Your task to perform on an android device: Show the shopping cart on ebay. Add macbook pro to the cart on ebay Image 0: 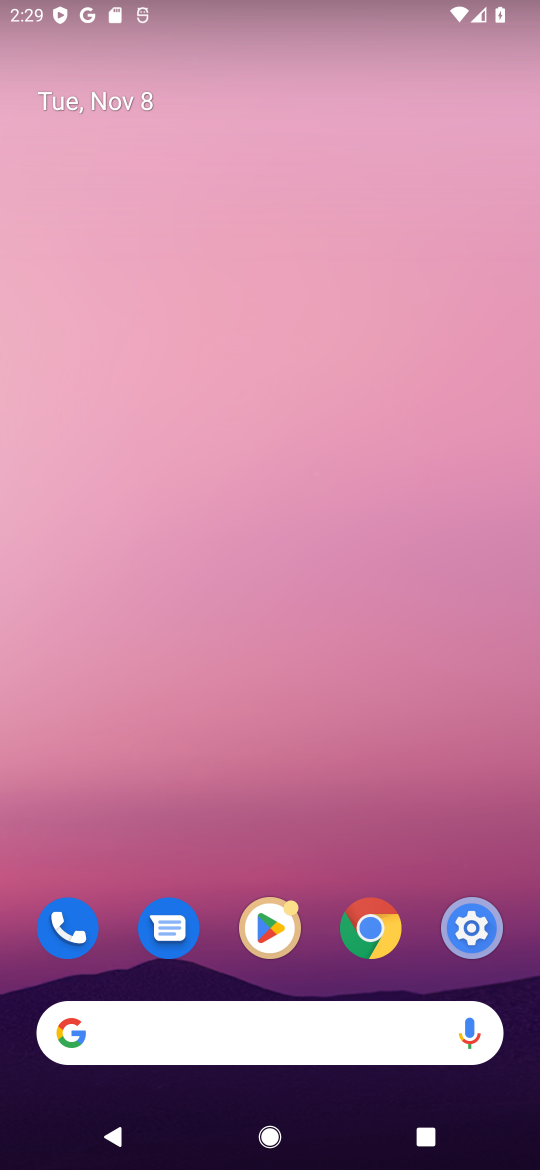
Step 0: click (263, 1036)
Your task to perform on an android device: Show the shopping cart on ebay. Add macbook pro to the cart on ebay Image 1: 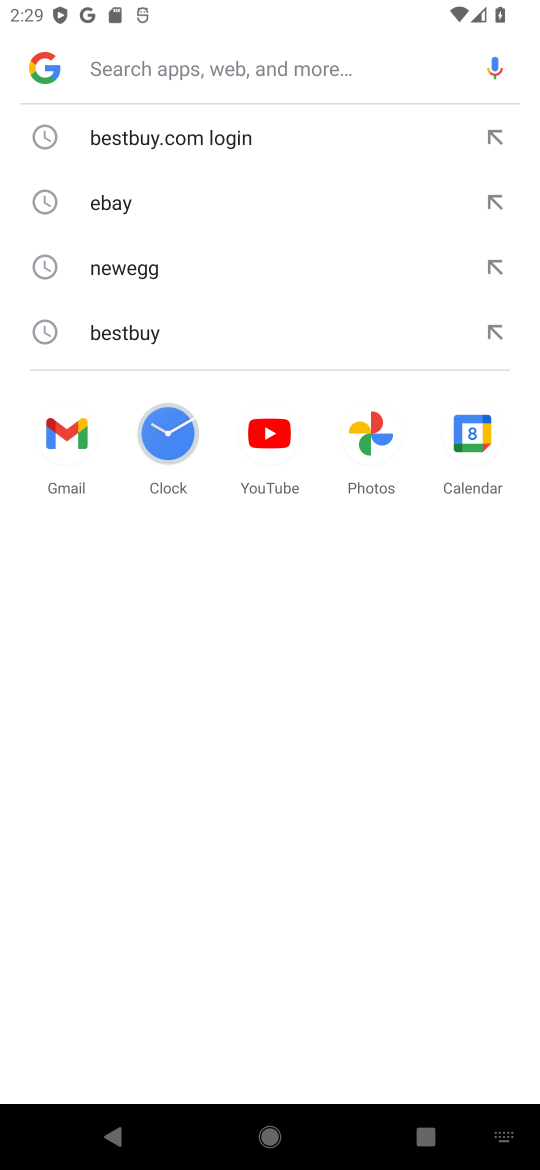
Step 1: click (125, 193)
Your task to perform on an android device: Show the shopping cart on ebay. Add macbook pro to the cart on ebay Image 2: 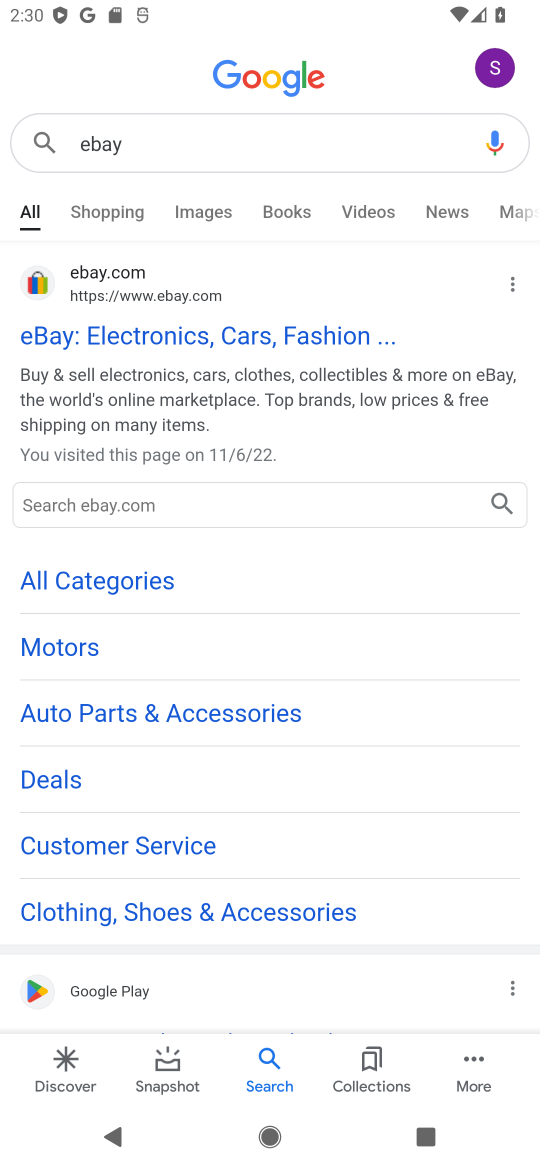
Step 2: click (108, 294)
Your task to perform on an android device: Show the shopping cart on ebay. Add macbook pro to the cart on ebay Image 3: 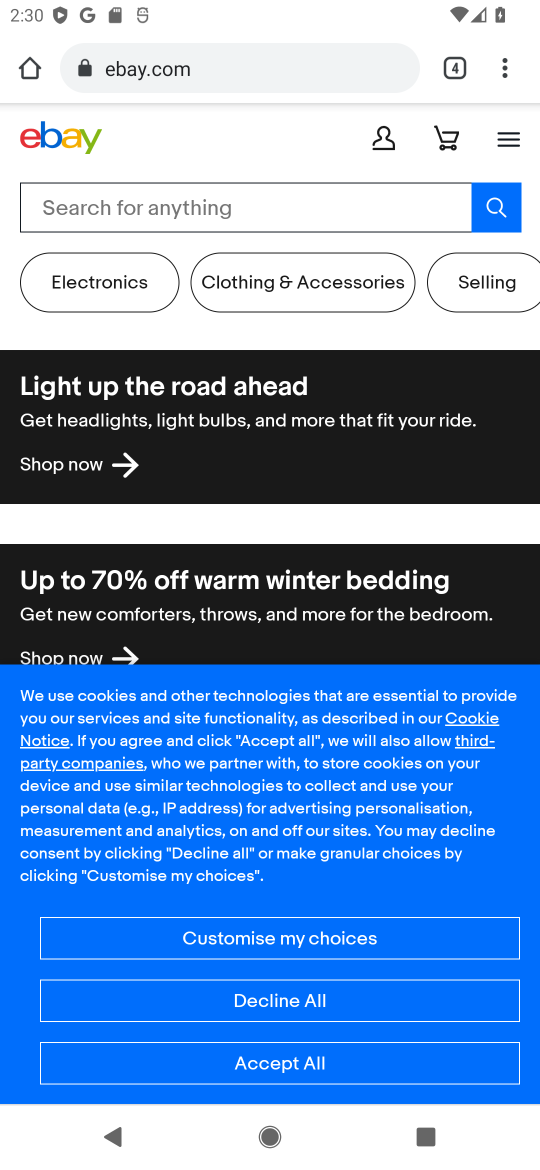
Step 3: click (219, 209)
Your task to perform on an android device: Show the shopping cart on ebay. Add macbook pro to the cart on ebay Image 4: 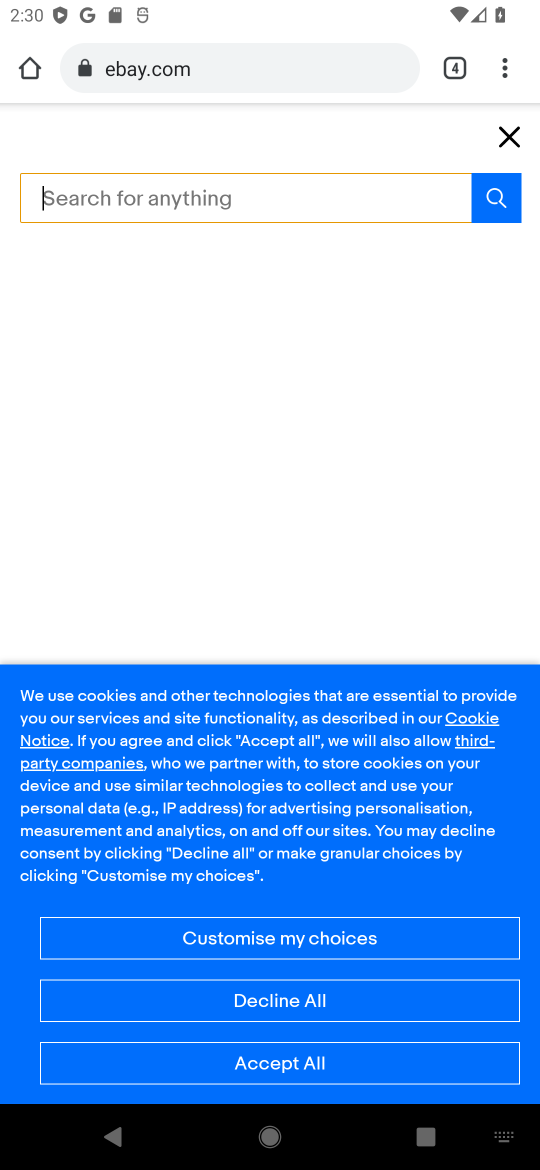
Step 4: type " macbook pro"
Your task to perform on an android device: Show the shopping cart on ebay. Add macbook pro to the cart on ebay Image 5: 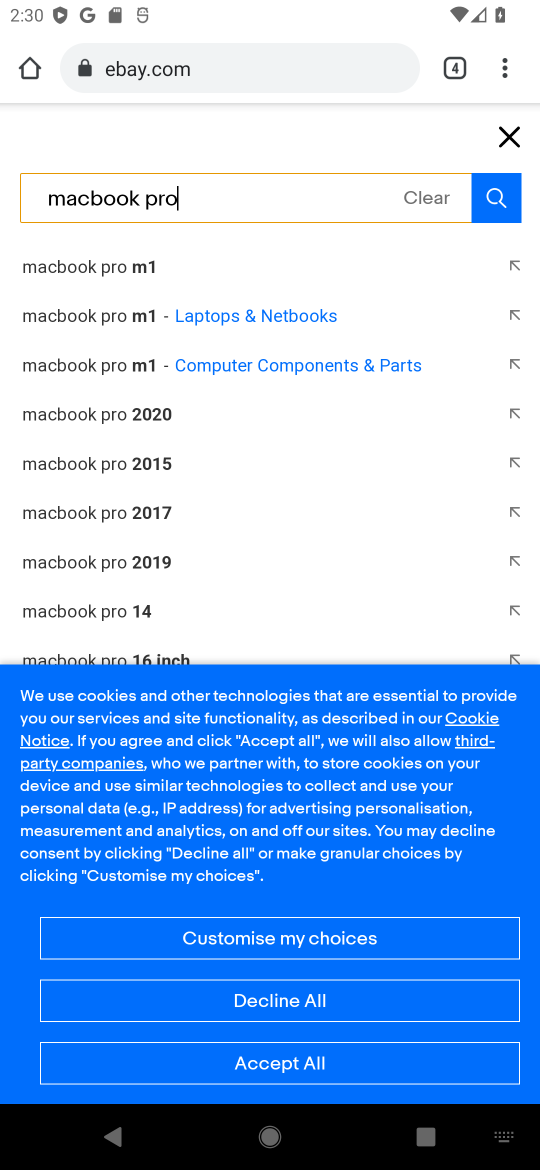
Step 5: click (144, 603)
Your task to perform on an android device: Show the shopping cart on ebay. Add macbook pro to the cart on ebay Image 6: 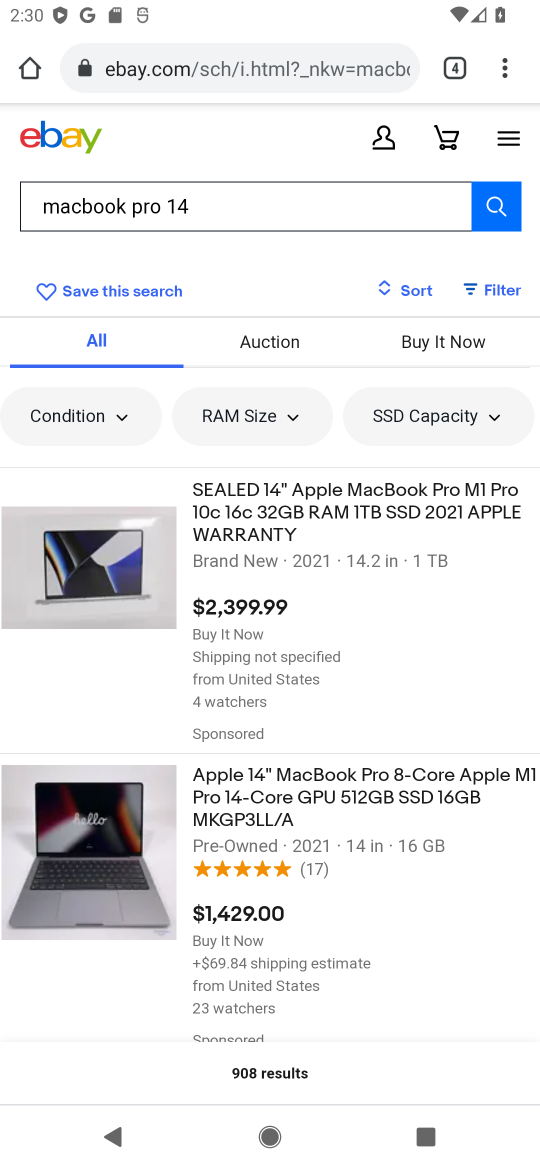
Step 6: click (245, 501)
Your task to perform on an android device: Show the shopping cart on ebay. Add macbook pro to the cart on ebay Image 7: 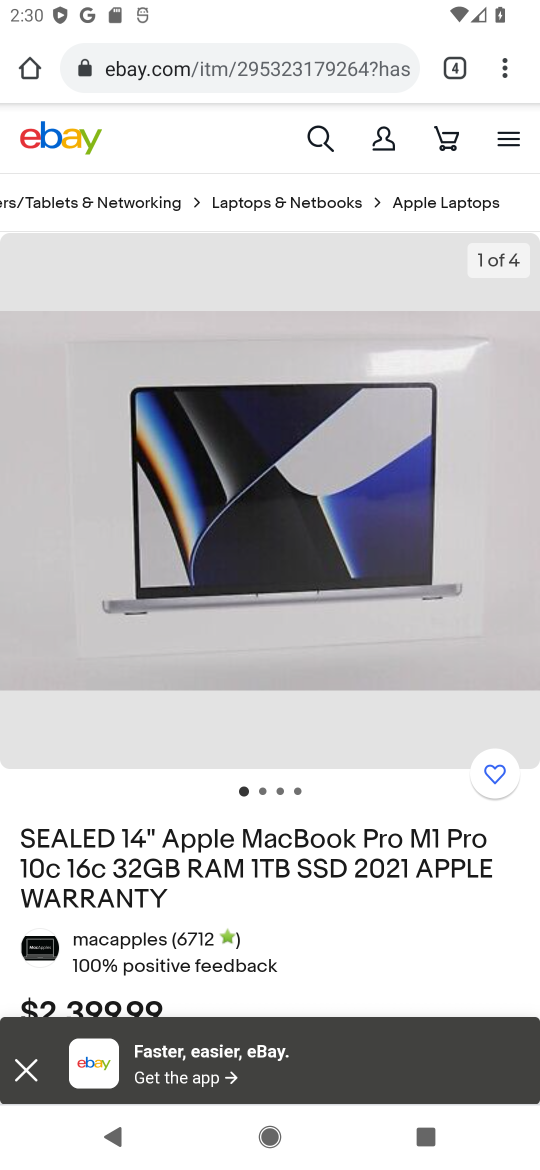
Step 7: drag from (121, 834) to (154, 415)
Your task to perform on an android device: Show the shopping cart on ebay. Add macbook pro to the cart on ebay Image 8: 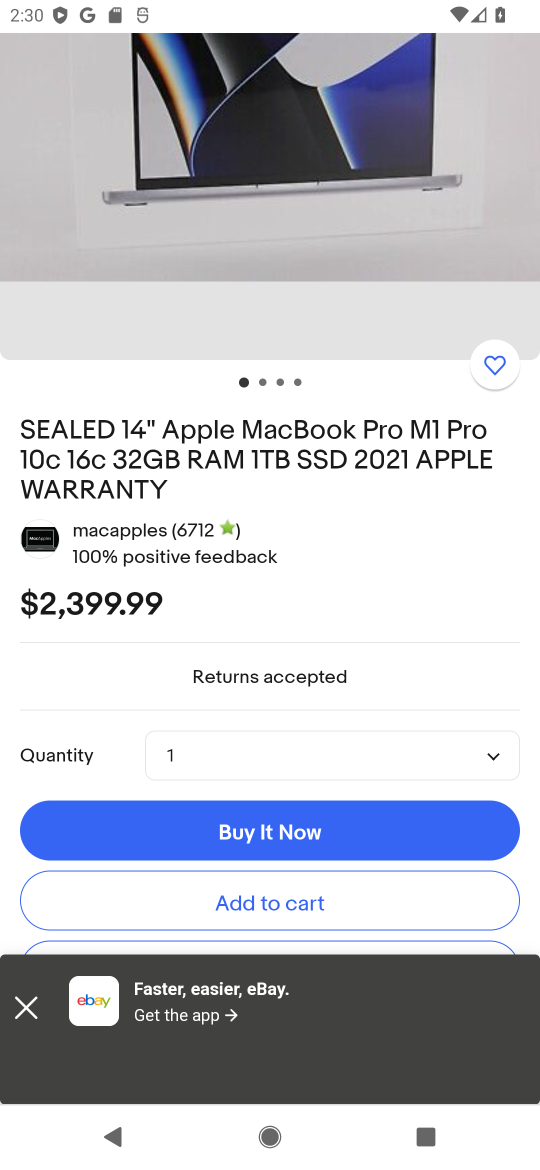
Step 8: drag from (129, 780) to (185, 600)
Your task to perform on an android device: Show the shopping cart on ebay. Add macbook pro to the cart on ebay Image 9: 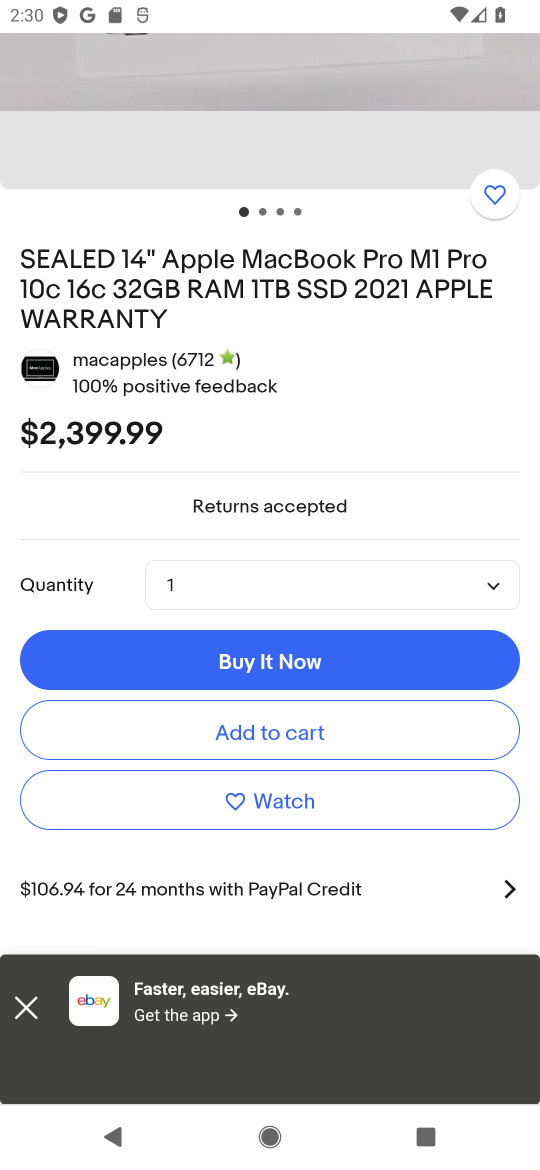
Step 9: click (271, 727)
Your task to perform on an android device: Show the shopping cart on ebay. Add macbook pro to the cart on ebay Image 10: 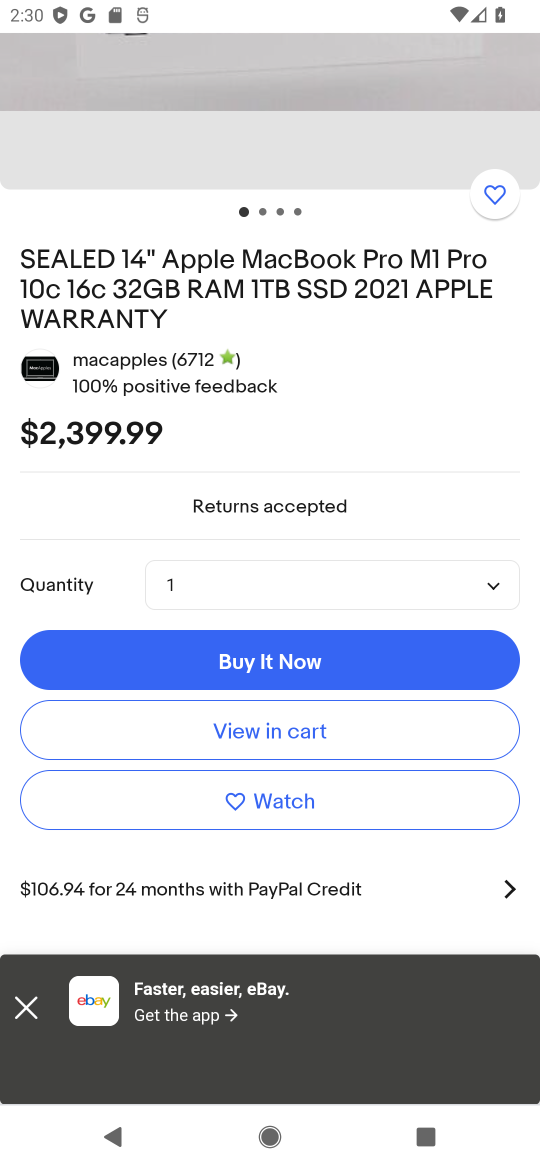
Step 10: task complete